Your task to perform on an android device: move a message to another label in the gmail app Image 0: 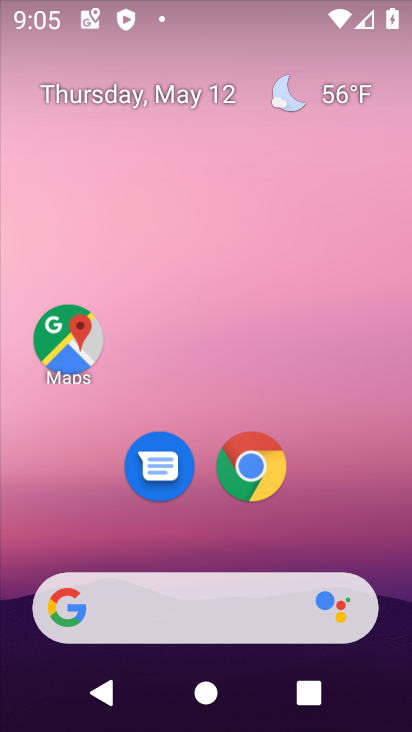
Step 0: drag from (300, 519) to (286, 76)
Your task to perform on an android device: move a message to another label in the gmail app Image 1: 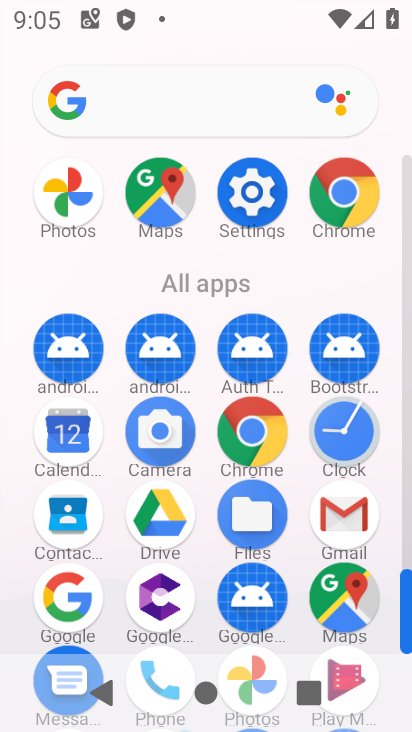
Step 1: click (358, 524)
Your task to perform on an android device: move a message to another label in the gmail app Image 2: 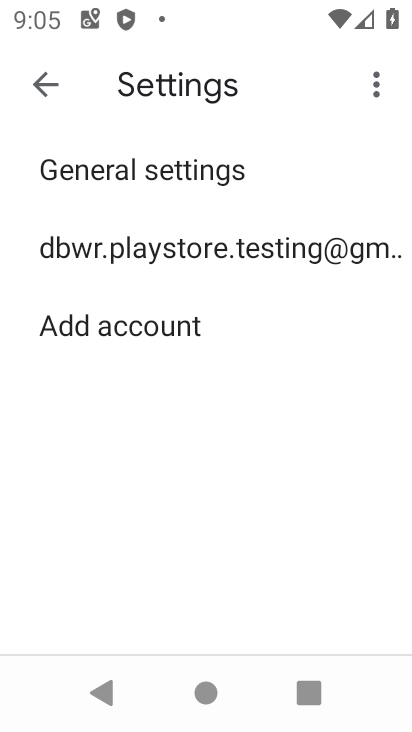
Step 2: press back button
Your task to perform on an android device: move a message to another label in the gmail app Image 3: 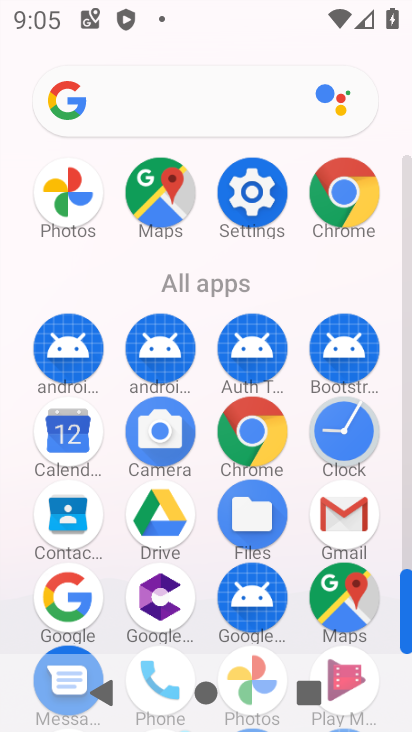
Step 3: click (340, 520)
Your task to perform on an android device: move a message to another label in the gmail app Image 4: 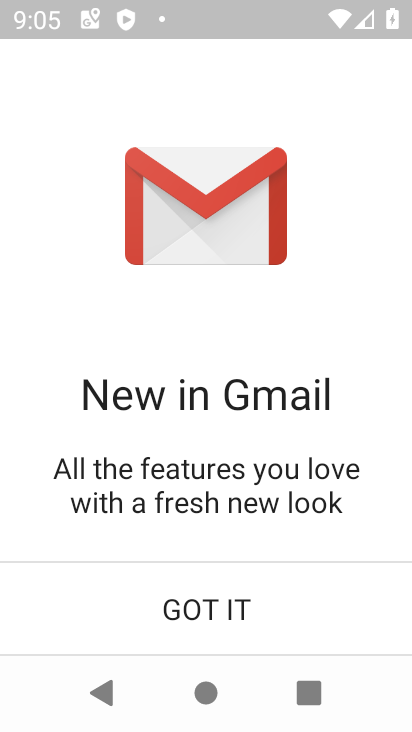
Step 4: click (258, 591)
Your task to perform on an android device: move a message to another label in the gmail app Image 5: 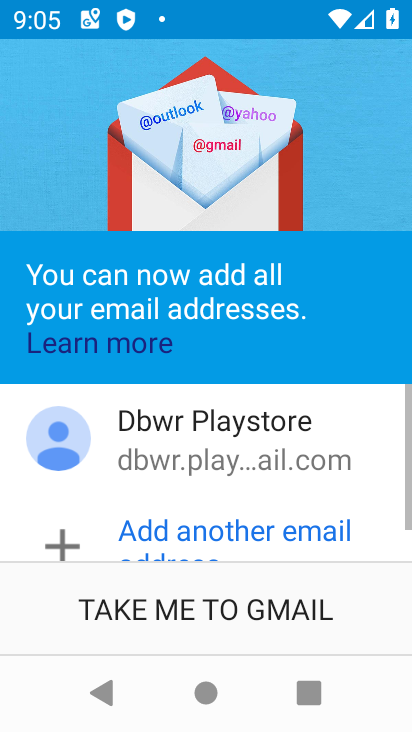
Step 5: click (240, 597)
Your task to perform on an android device: move a message to another label in the gmail app Image 6: 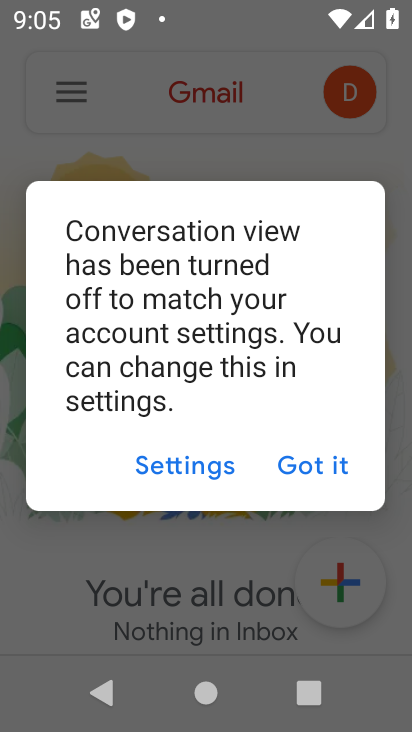
Step 6: click (297, 467)
Your task to perform on an android device: move a message to another label in the gmail app Image 7: 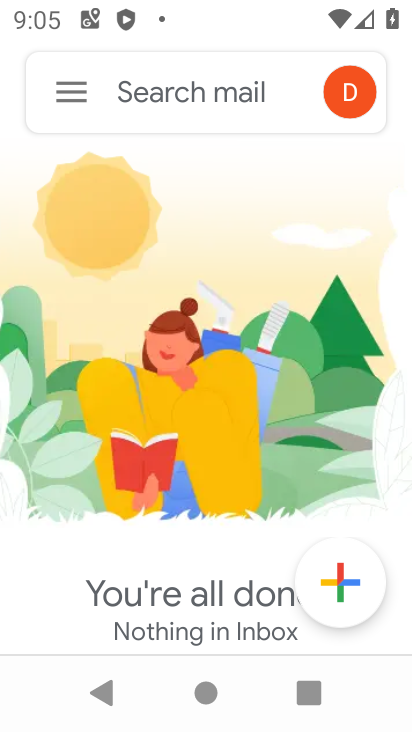
Step 7: task complete